Your task to perform on an android device: set the timer Image 0: 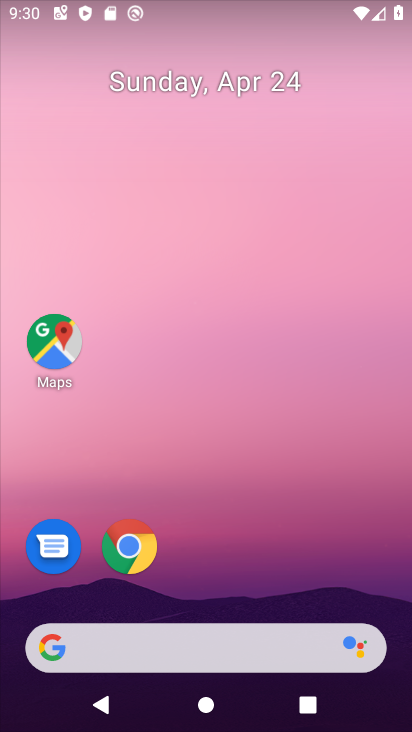
Step 0: drag from (264, 595) to (263, 149)
Your task to perform on an android device: set the timer Image 1: 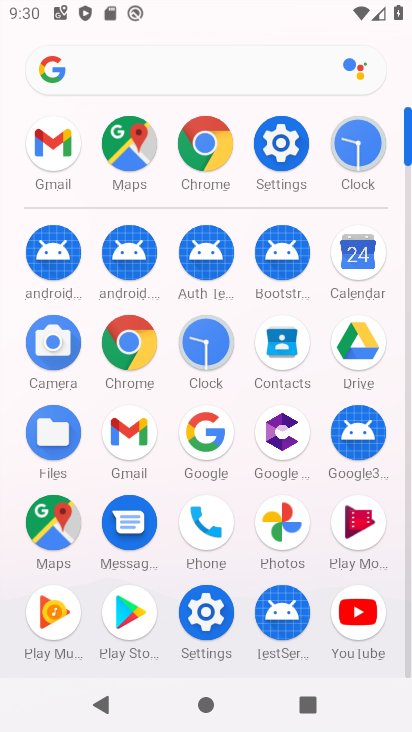
Step 1: click (366, 168)
Your task to perform on an android device: set the timer Image 2: 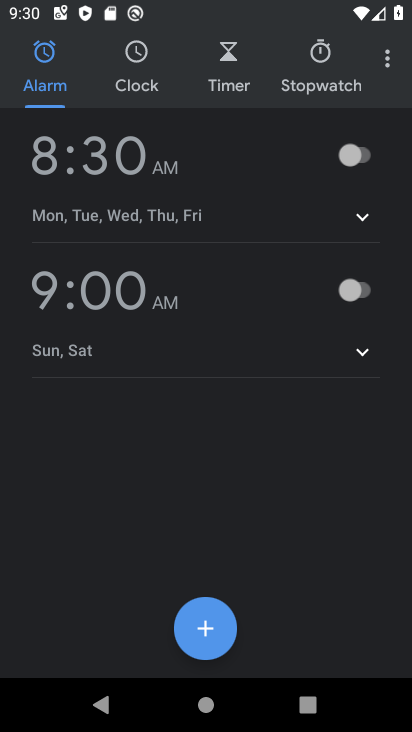
Step 2: click (238, 68)
Your task to perform on an android device: set the timer Image 3: 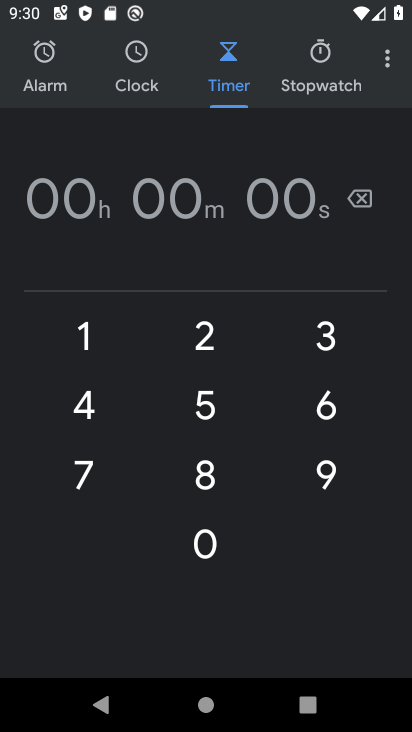
Step 3: task complete